Your task to perform on an android device: open app "Booking.com: Hotels and more" (install if not already installed) Image 0: 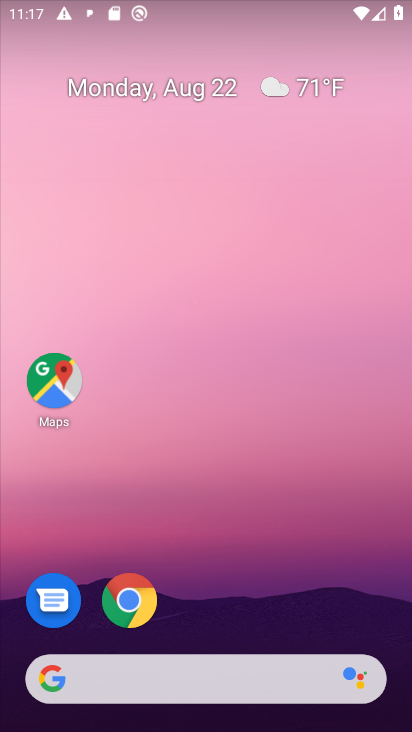
Step 0: drag from (232, 597) to (252, 125)
Your task to perform on an android device: open app "Booking.com: Hotels and more" (install if not already installed) Image 1: 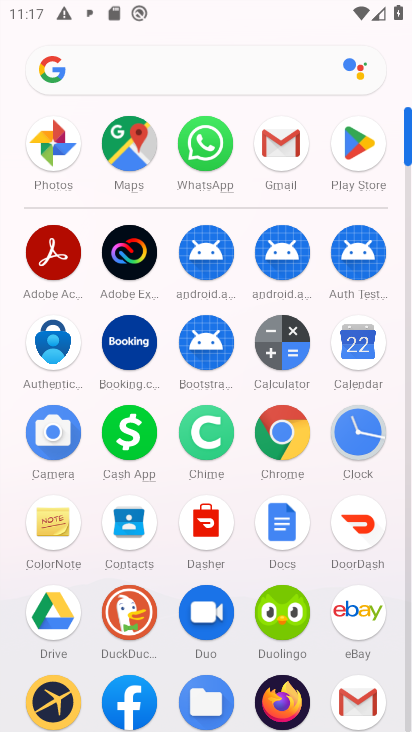
Step 1: click (345, 151)
Your task to perform on an android device: open app "Booking.com: Hotels and more" (install if not already installed) Image 2: 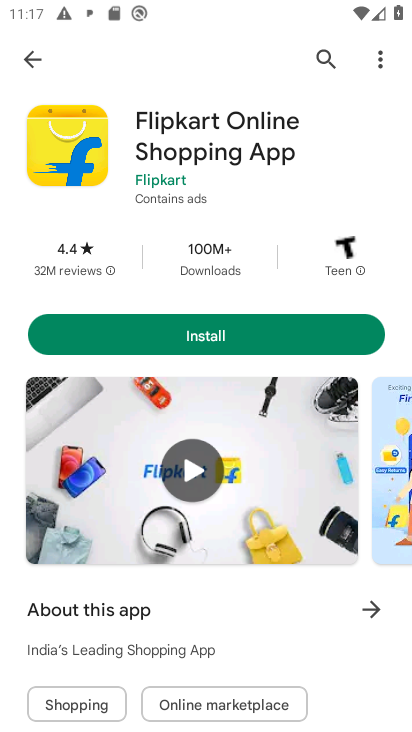
Step 2: click (326, 52)
Your task to perform on an android device: open app "Booking.com: Hotels and more" (install if not already installed) Image 3: 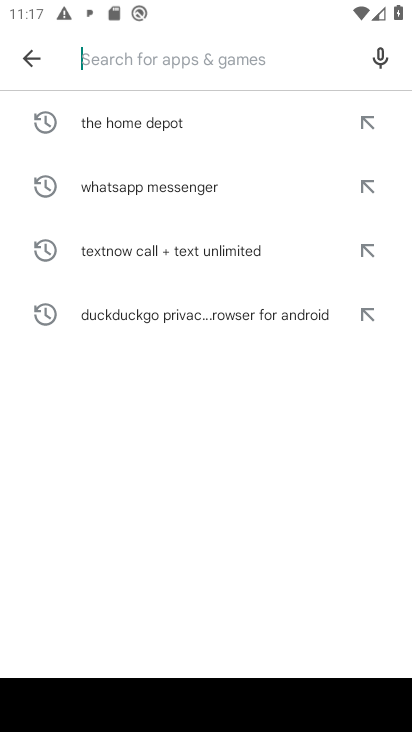
Step 3: type "Booking.com: Hotels and more"
Your task to perform on an android device: open app "Booking.com: Hotels and more" (install if not already installed) Image 4: 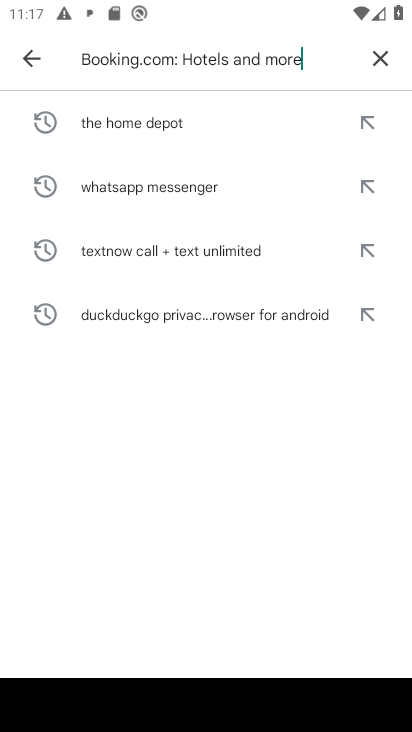
Step 4: type ""
Your task to perform on an android device: open app "Booking.com: Hotels and more" (install if not already installed) Image 5: 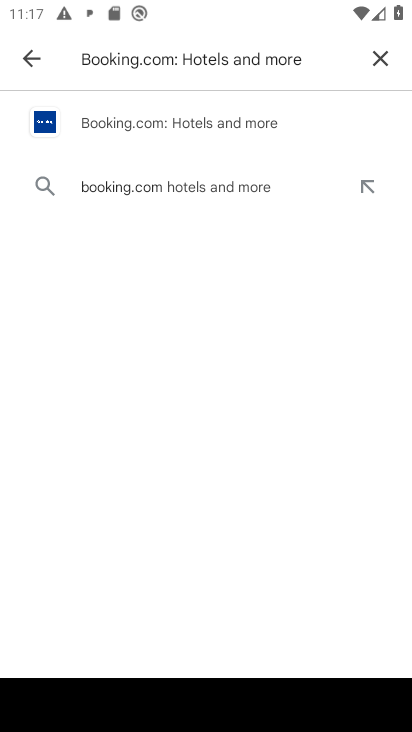
Step 5: click (183, 127)
Your task to perform on an android device: open app "Booking.com: Hotels and more" (install if not already installed) Image 6: 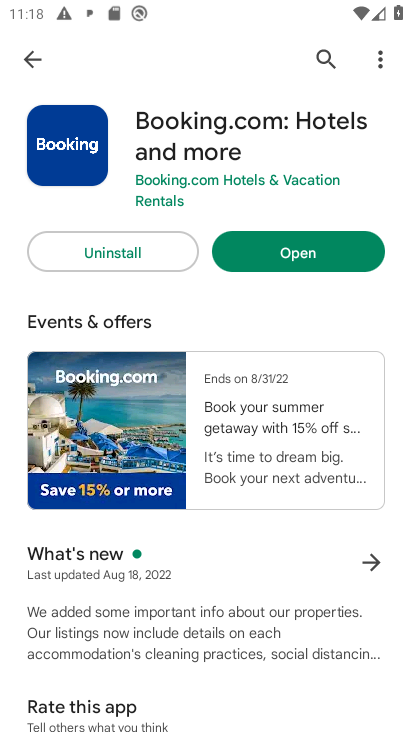
Step 6: click (266, 244)
Your task to perform on an android device: open app "Booking.com: Hotels and more" (install if not already installed) Image 7: 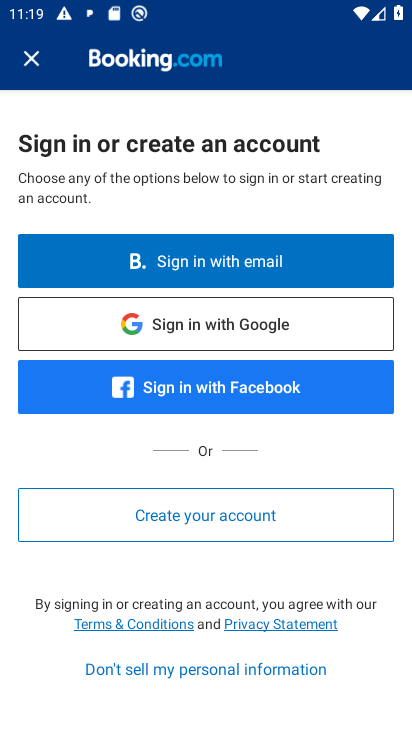
Step 7: task complete